Your task to perform on an android device: Open calendar and show me the fourth week of next month Image 0: 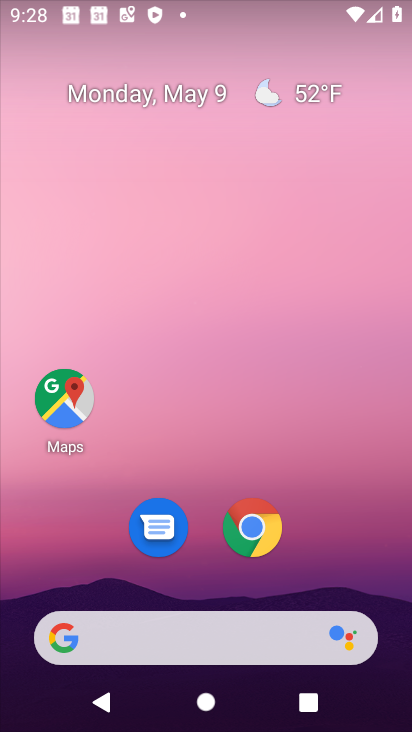
Step 0: drag from (191, 573) to (196, 55)
Your task to perform on an android device: Open calendar and show me the fourth week of next month Image 1: 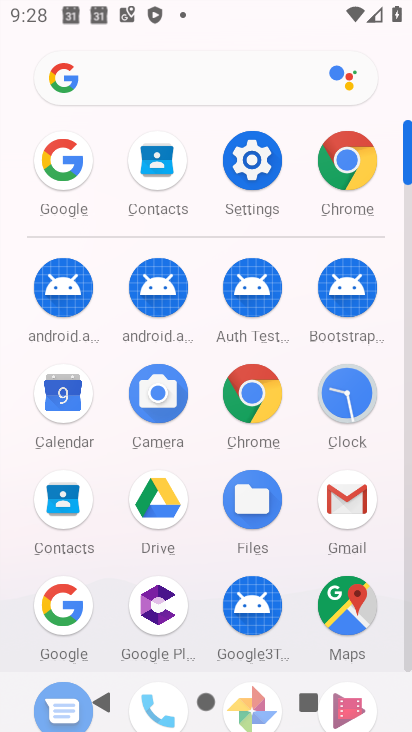
Step 1: click (62, 396)
Your task to perform on an android device: Open calendar and show me the fourth week of next month Image 2: 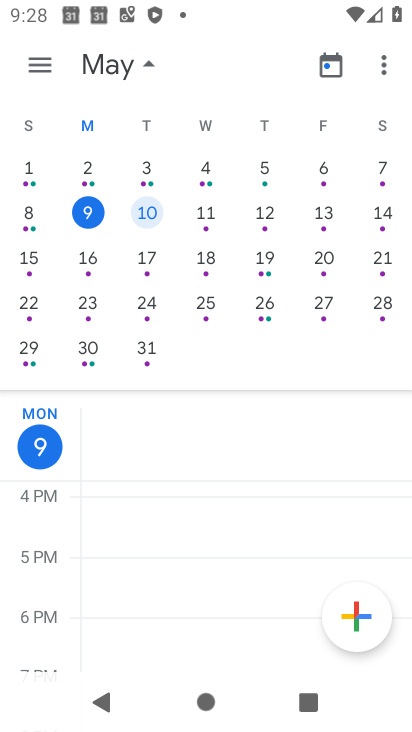
Step 2: drag from (361, 371) to (7, 311)
Your task to perform on an android device: Open calendar and show me the fourth week of next month Image 3: 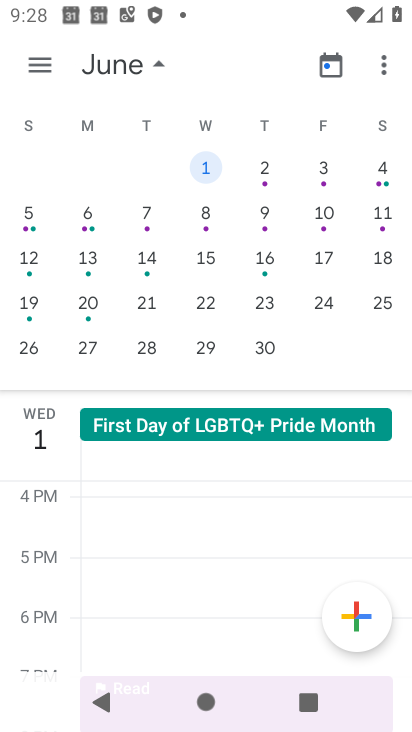
Step 3: click (210, 298)
Your task to perform on an android device: Open calendar and show me the fourth week of next month Image 4: 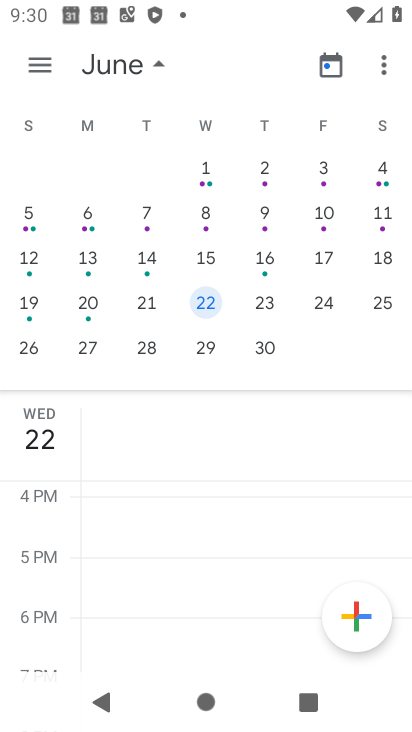
Step 4: task complete